Your task to perform on an android device: Search for "logitech g903" on costco.com, select the first entry, and add it to the cart. Image 0: 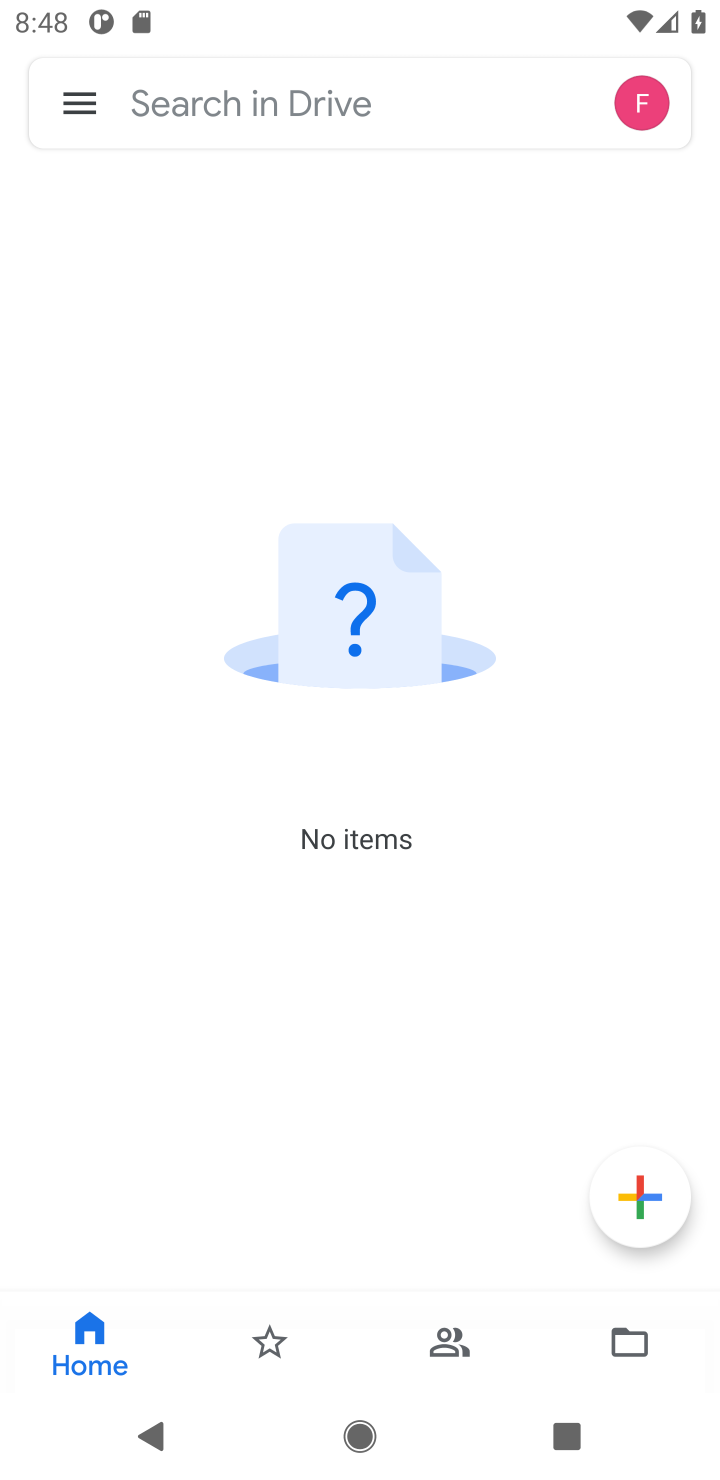
Step 0: press home button
Your task to perform on an android device: Search for "logitech g903" on costco.com, select the first entry, and add it to the cart. Image 1: 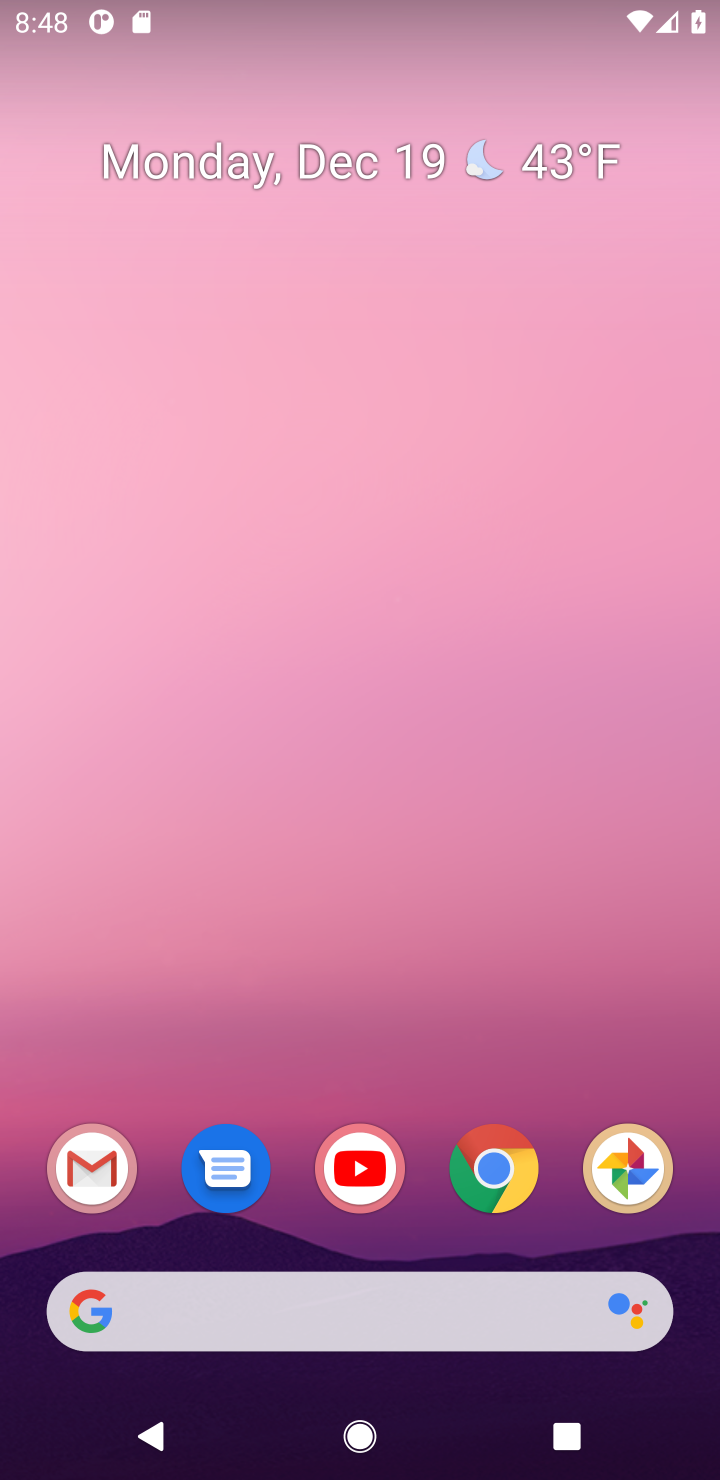
Step 1: click (486, 1179)
Your task to perform on an android device: Search for "logitech g903" on costco.com, select the first entry, and add it to the cart. Image 2: 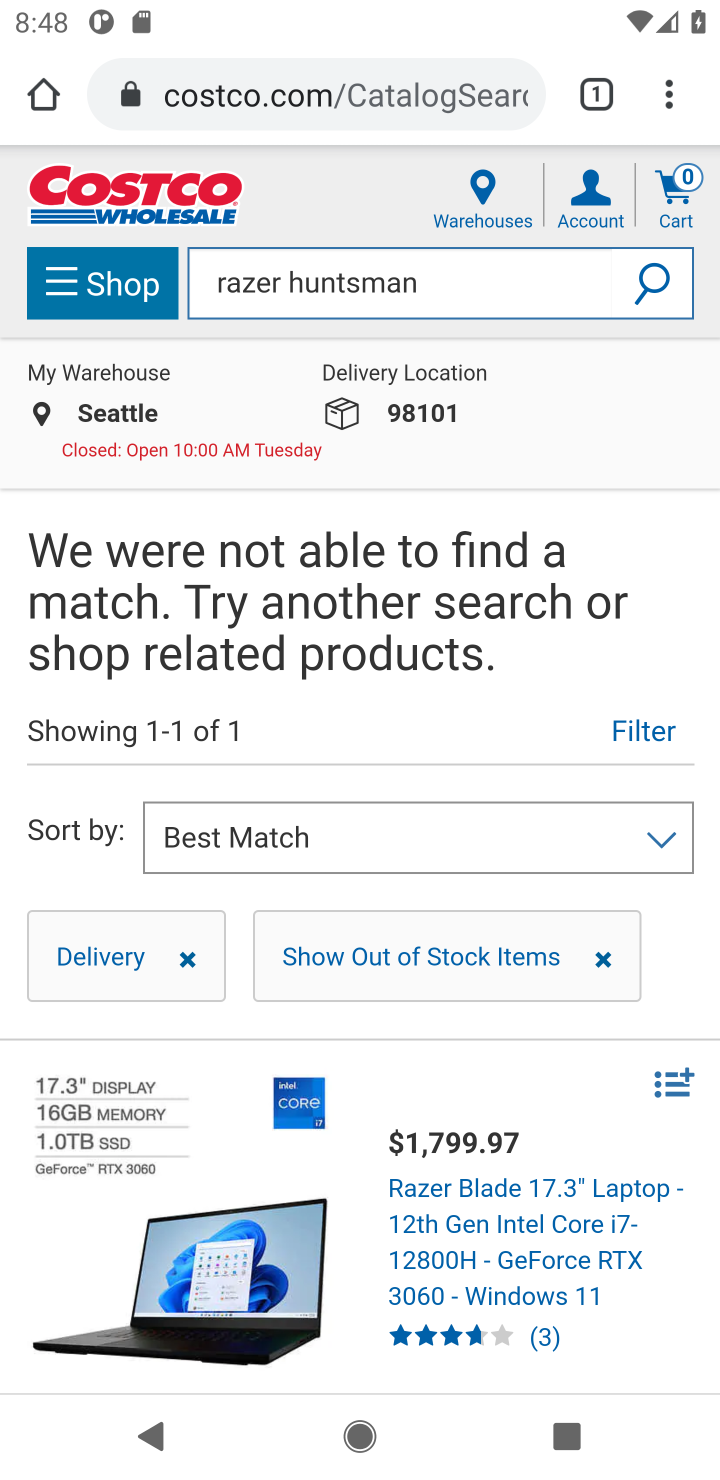
Step 2: click (330, 290)
Your task to perform on an android device: Search for "logitech g903" on costco.com, select the first entry, and add it to the cart. Image 3: 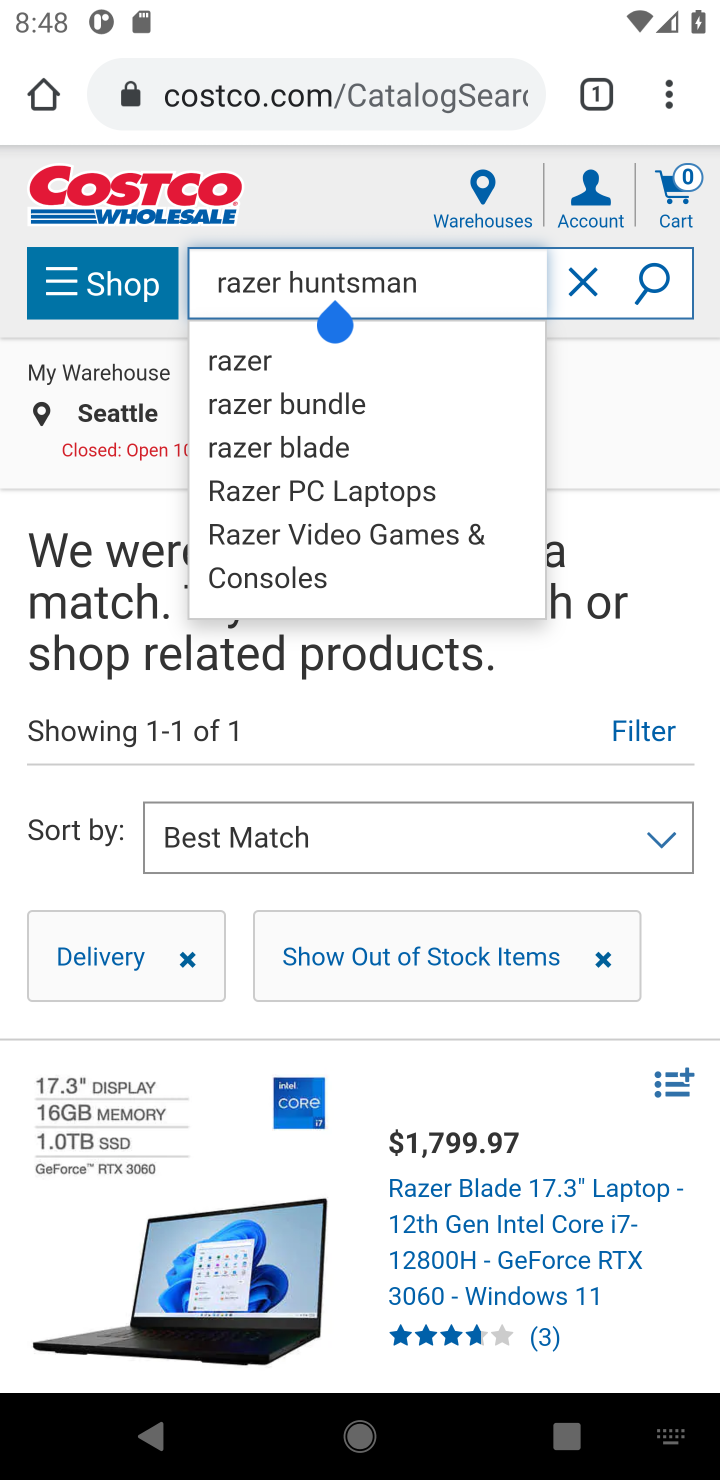
Step 3: click (585, 288)
Your task to perform on an android device: Search for "logitech g903" on costco.com, select the first entry, and add it to the cart. Image 4: 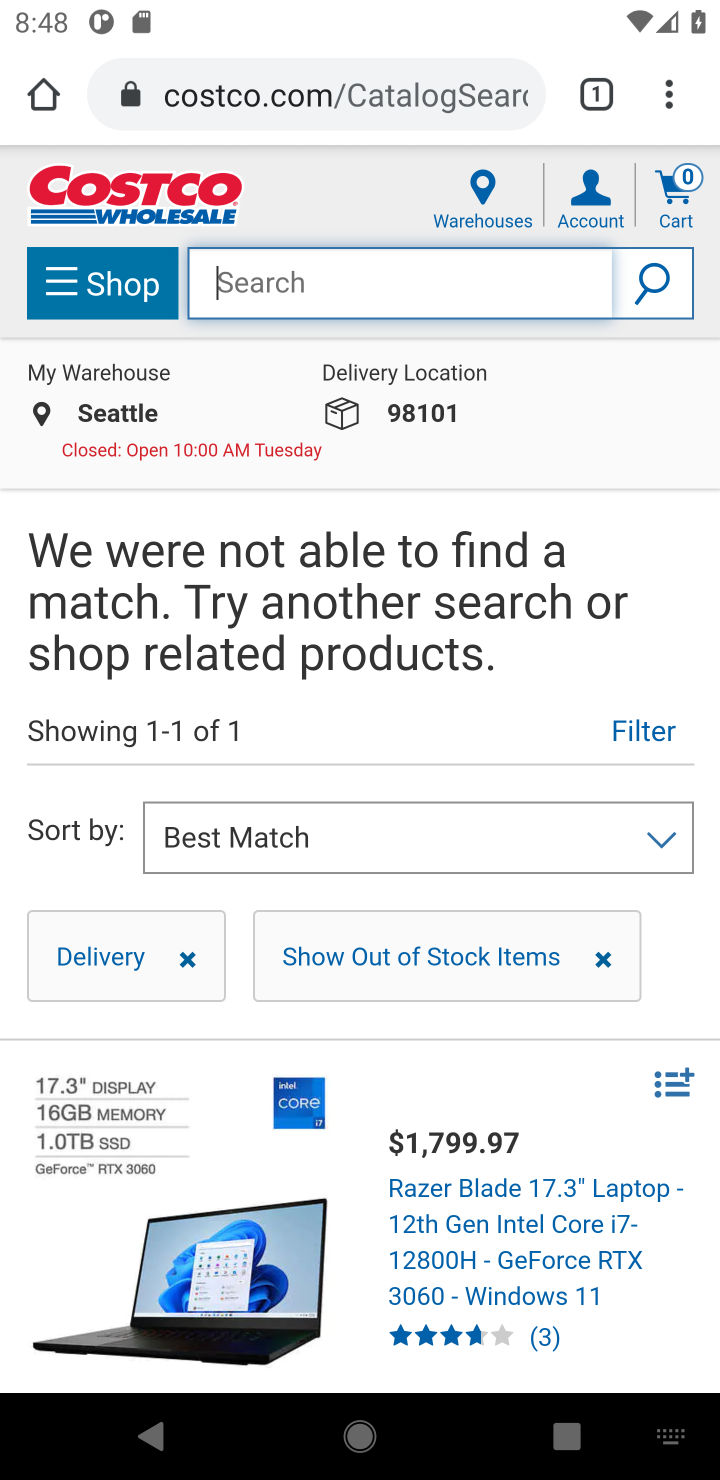
Step 4: click (290, 293)
Your task to perform on an android device: Search for "logitech g903" on costco.com, select the first entry, and add it to the cart. Image 5: 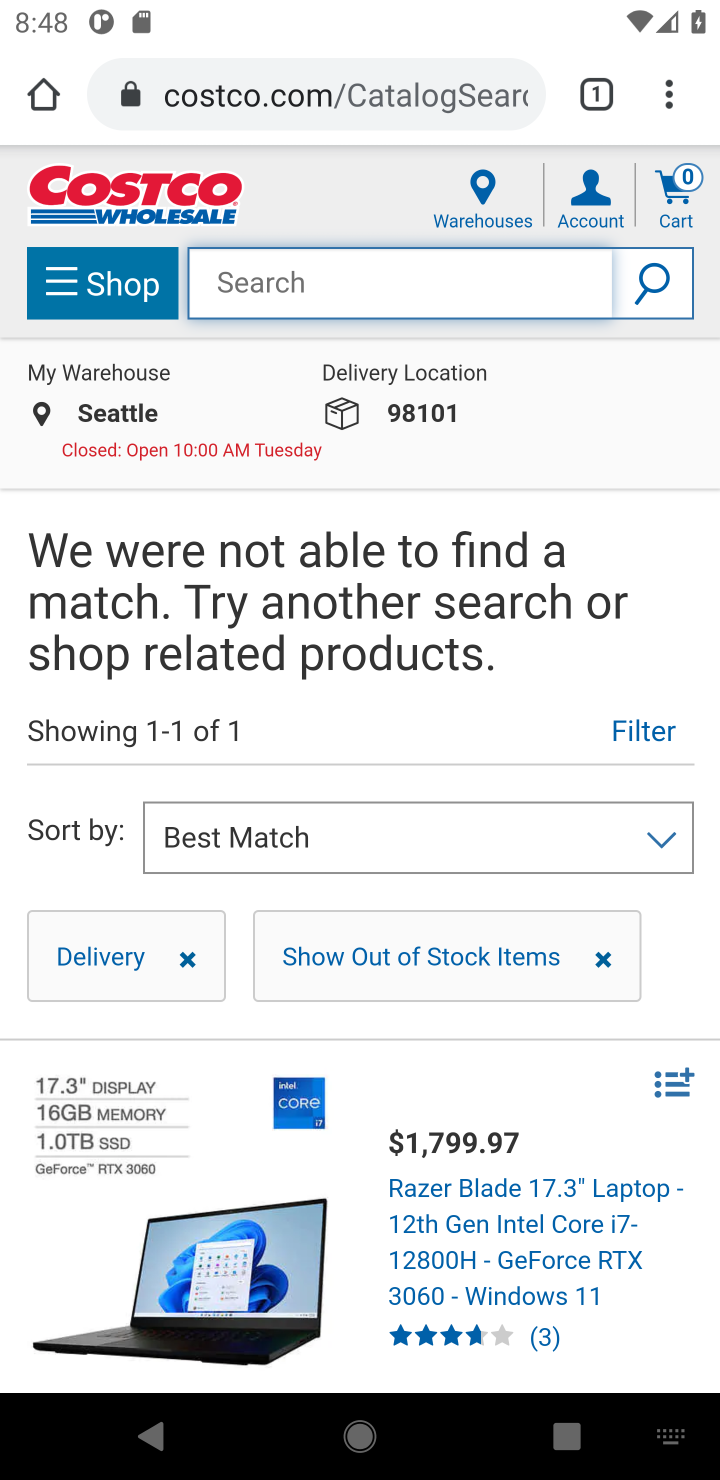
Step 5: type "logitech g903"
Your task to perform on an android device: Search for "logitech g903" on costco.com, select the first entry, and add it to the cart. Image 6: 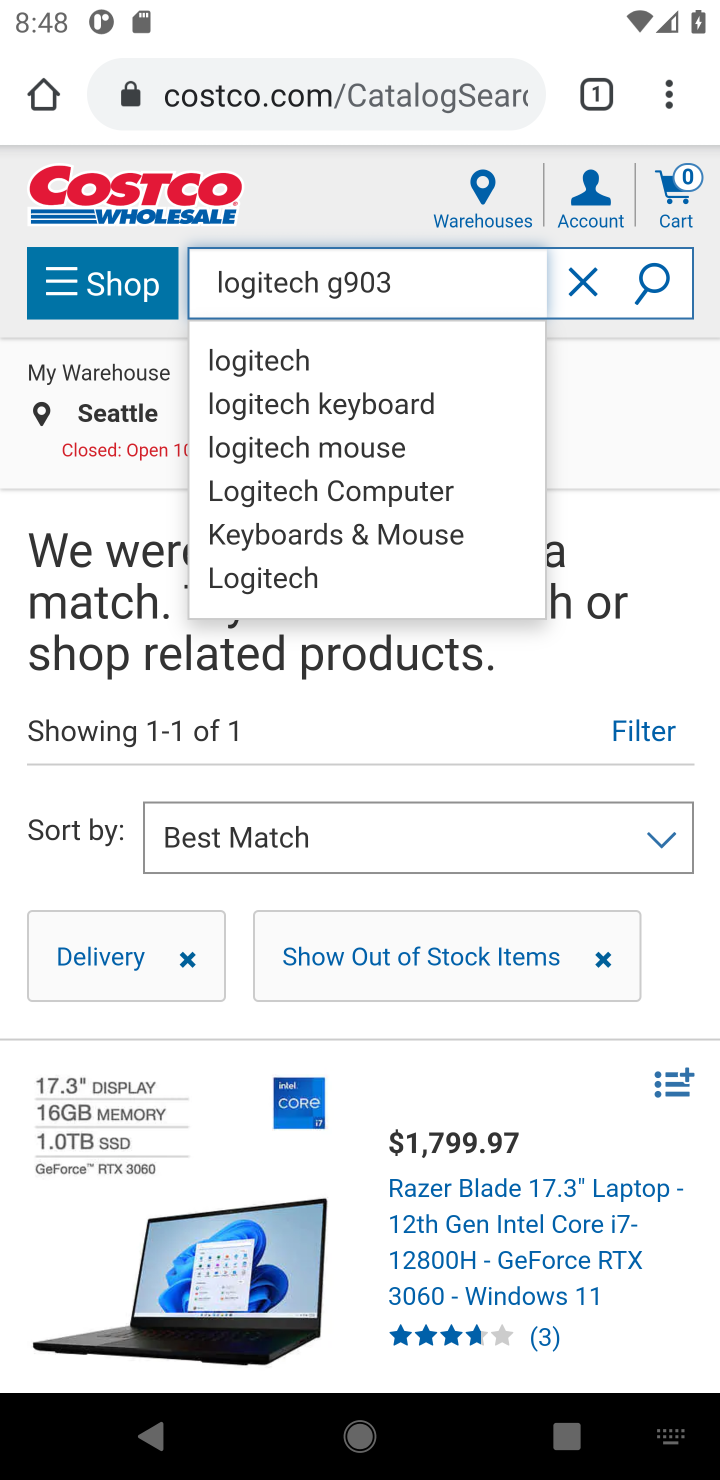
Step 6: click (666, 290)
Your task to perform on an android device: Search for "logitech g903" on costco.com, select the first entry, and add it to the cart. Image 7: 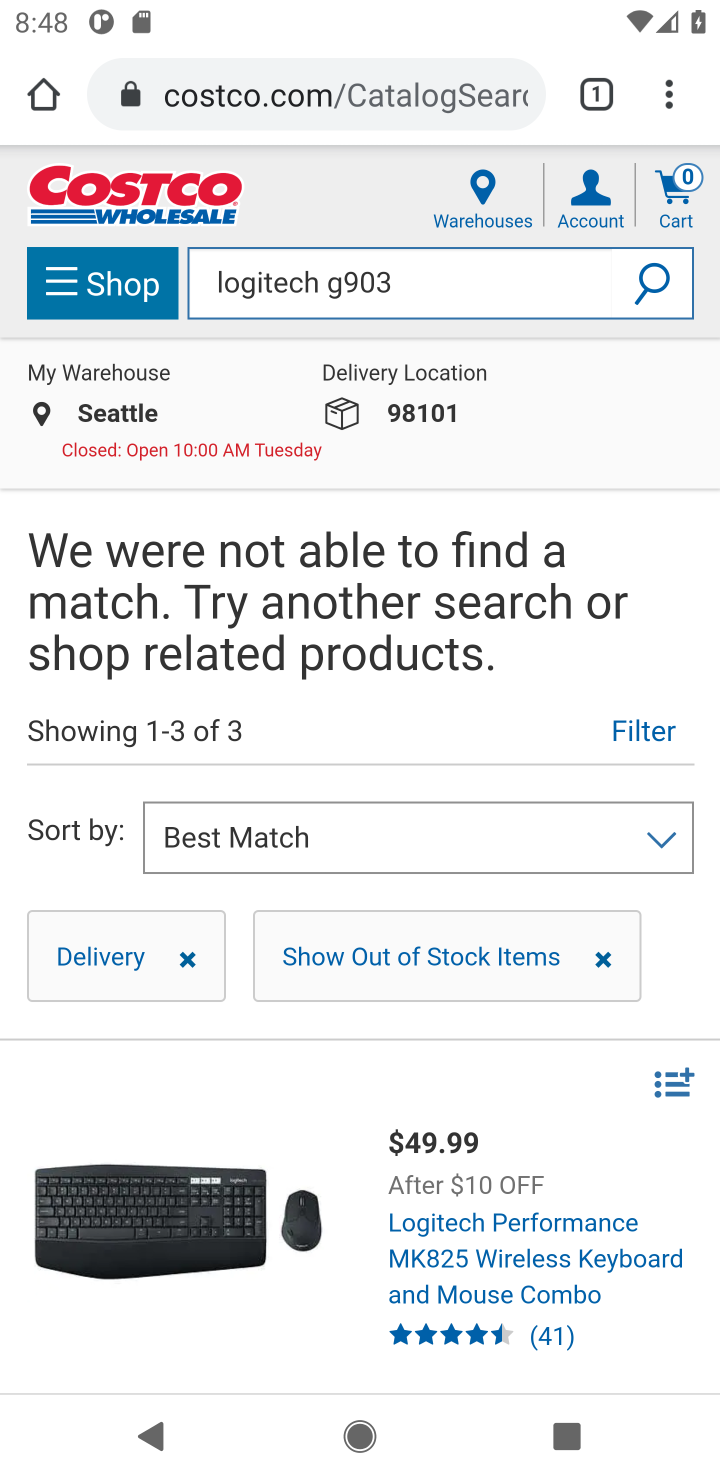
Step 7: task complete